Your task to perform on an android device: change keyboard looks Image 0: 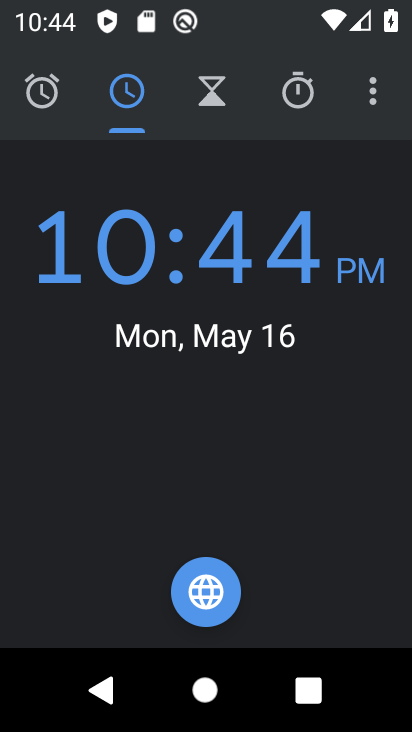
Step 0: press home button
Your task to perform on an android device: change keyboard looks Image 1: 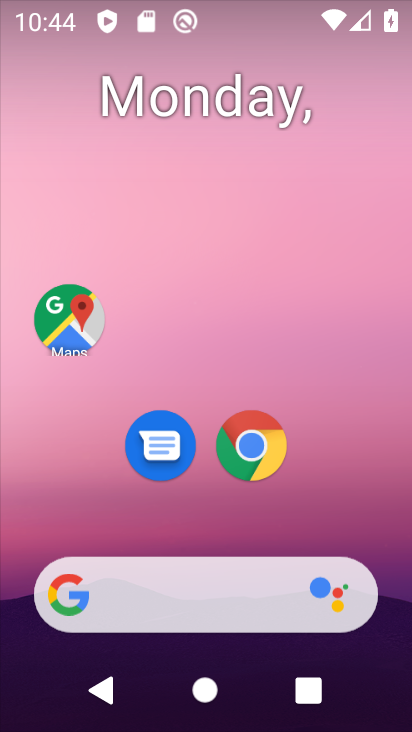
Step 1: drag from (212, 513) to (223, 42)
Your task to perform on an android device: change keyboard looks Image 2: 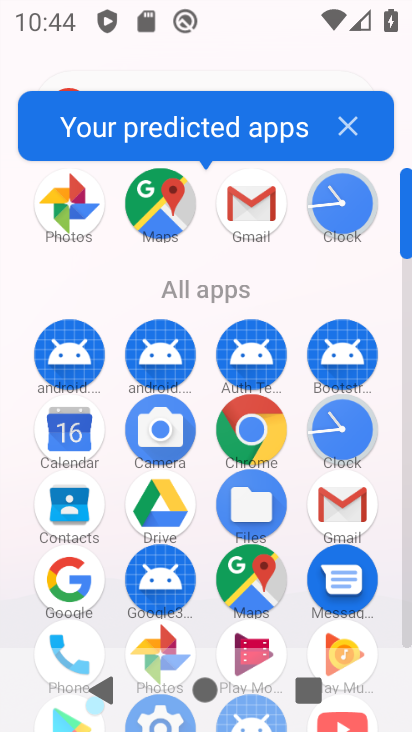
Step 2: drag from (113, 494) to (134, 116)
Your task to perform on an android device: change keyboard looks Image 3: 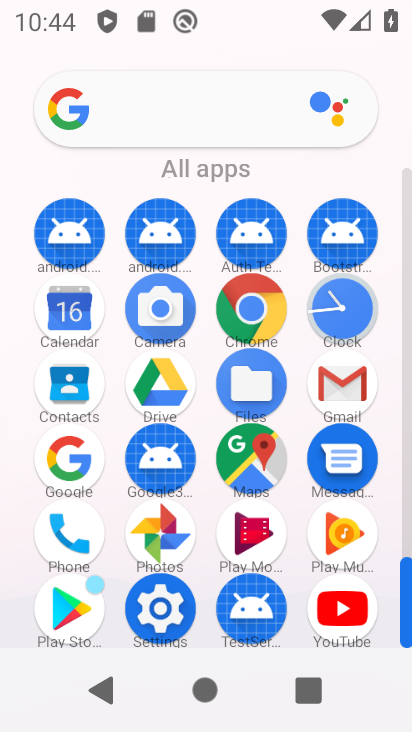
Step 3: click (164, 603)
Your task to perform on an android device: change keyboard looks Image 4: 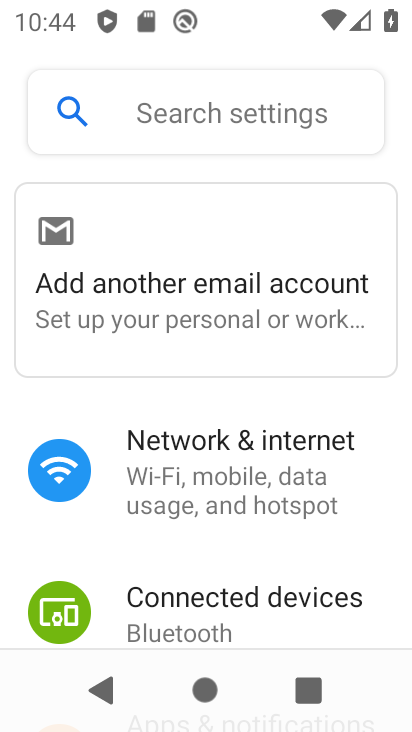
Step 4: drag from (264, 541) to (270, 152)
Your task to perform on an android device: change keyboard looks Image 5: 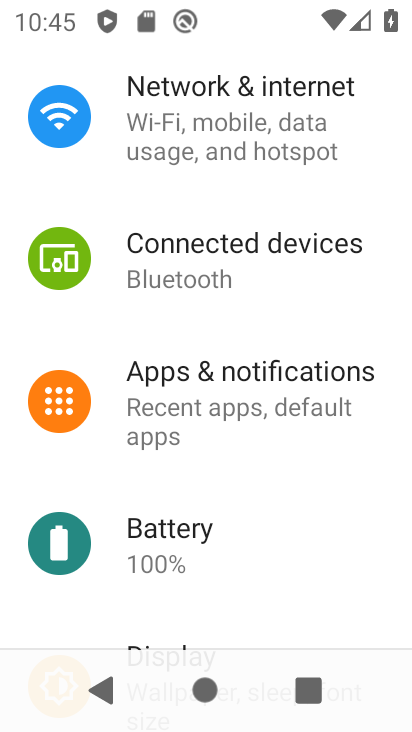
Step 5: drag from (241, 515) to (262, 190)
Your task to perform on an android device: change keyboard looks Image 6: 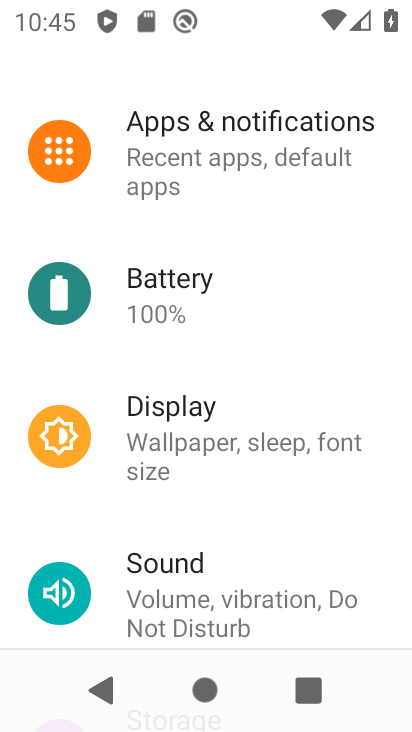
Step 6: drag from (277, 599) to (274, 127)
Your task to perform on an android device: change keyboard looks Image 7: 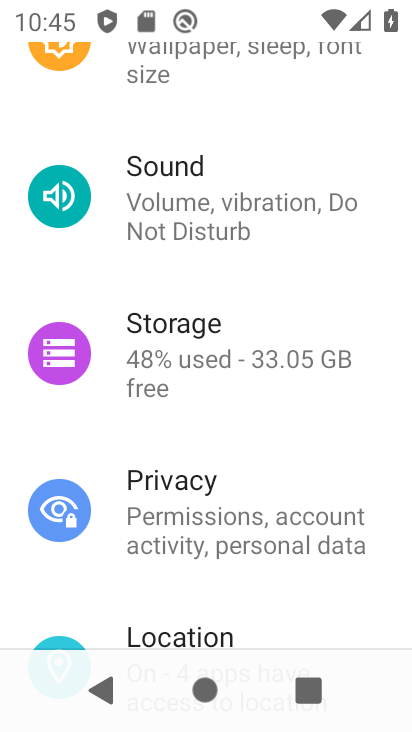
Step 7: drag from (224, 571) to (214, 108)
Your task to perform on an android device: change keyboard looks Image 8: 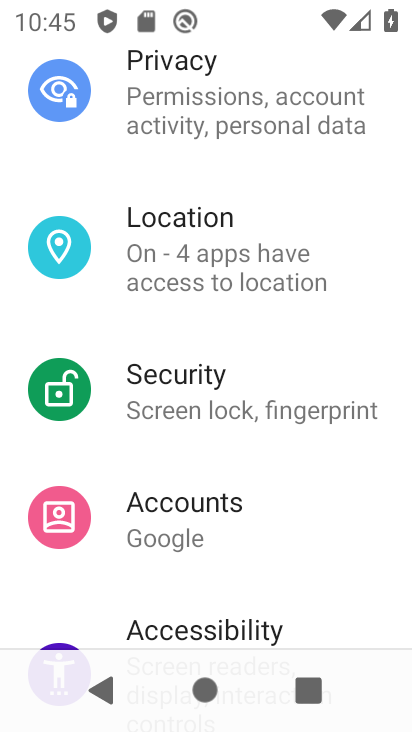
Step 8: drag from (197, 570) to (238, 76)
Your task to perform on an android device: change keyboard looks Image 9: 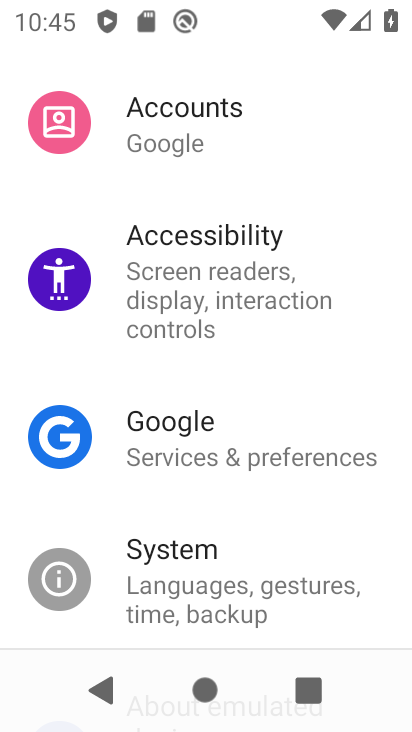
Step 9: click (178, 550)
Your task to perform on an android device: change keyboard looks Image 10: 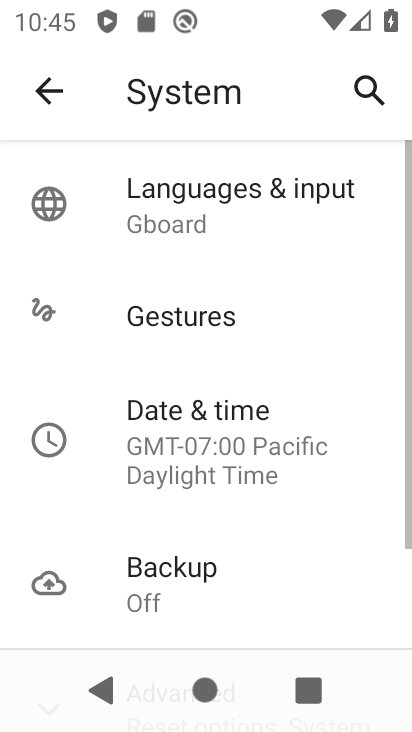
Step 10: click (233, 213)
Your task to perform on an android device: change keyboard looks Image 11: 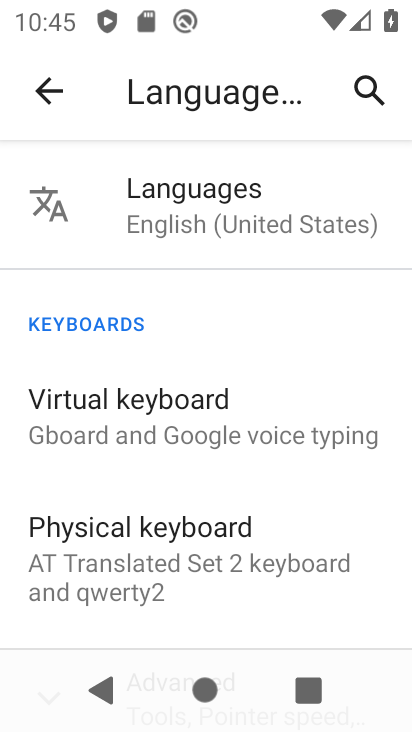
Step 11: click (214, 422)
Your task to perform on an android device: change keyboard looks Image 12: 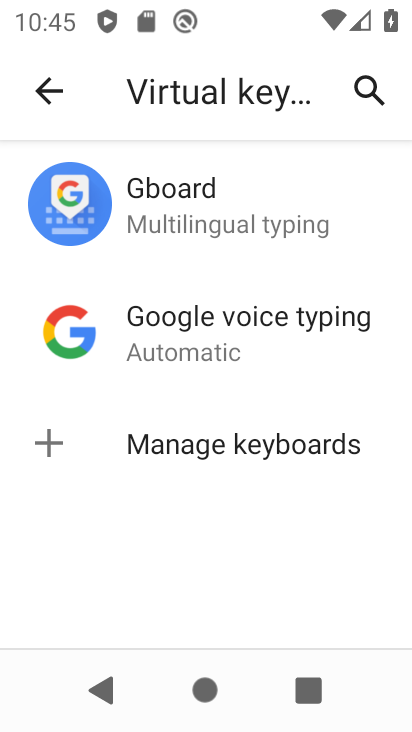
Step 12: click (194, 202)
Your task to perform on an android device: change keyboard looks Image 13: 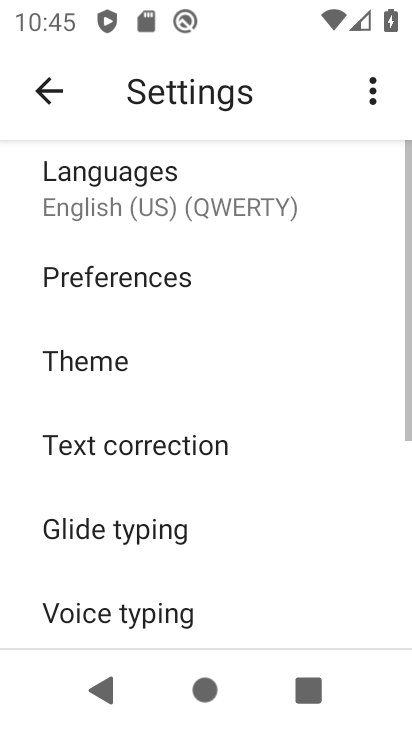
Step 13: click (132, 344)
Your task to perform on an android device: change keyboard looks Image 14: 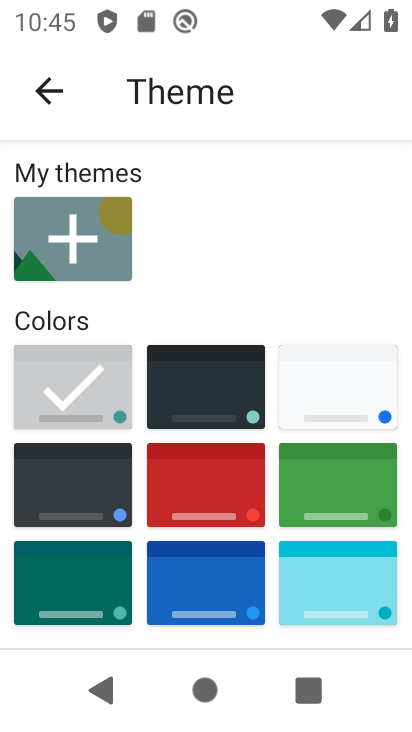
Step 14: click (207, 379)
Your task to perform on an android device: change keyboard looks Image 15: 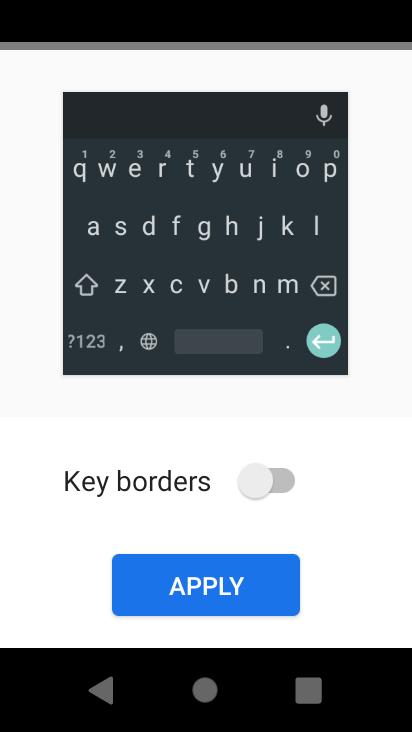
Step 15: click (203, 581)
Your task to perform on an android device: change keyboard looks Image 16: 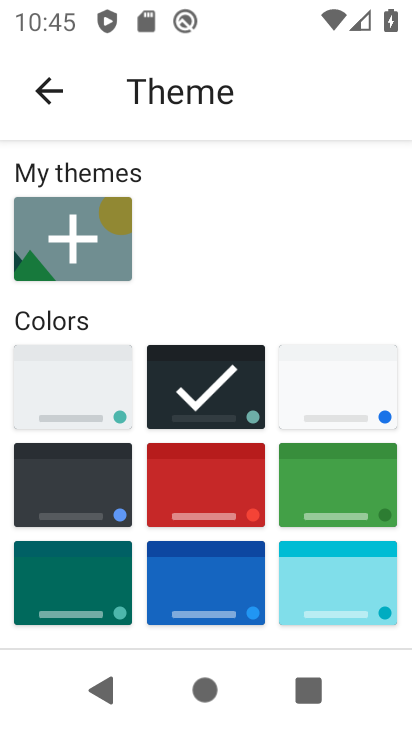
Step 16: task complete